Your task to perform on an android device: open app "Move to iOS" Image 0: 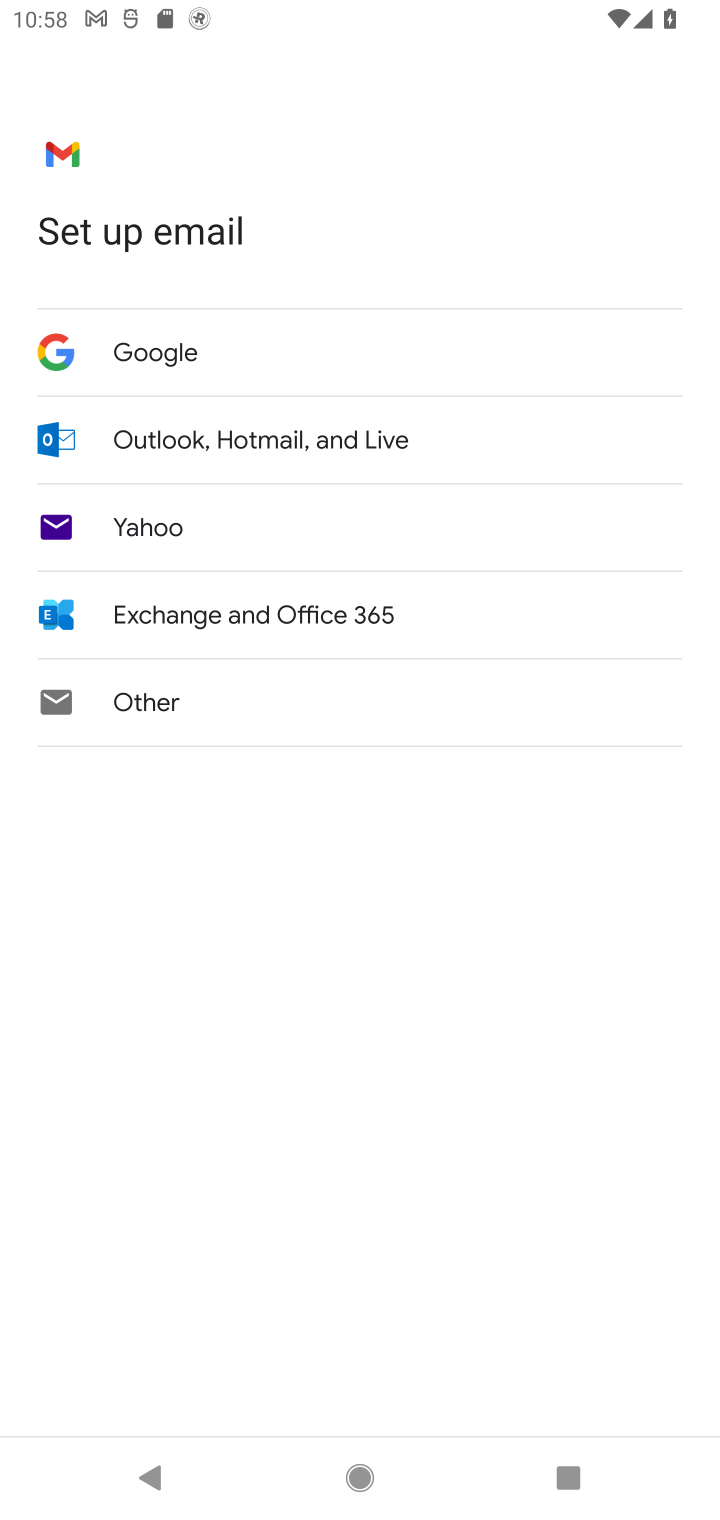
Step 0: press home button
Your task to perform on an android device: open app "Move to iOS" Image 1: 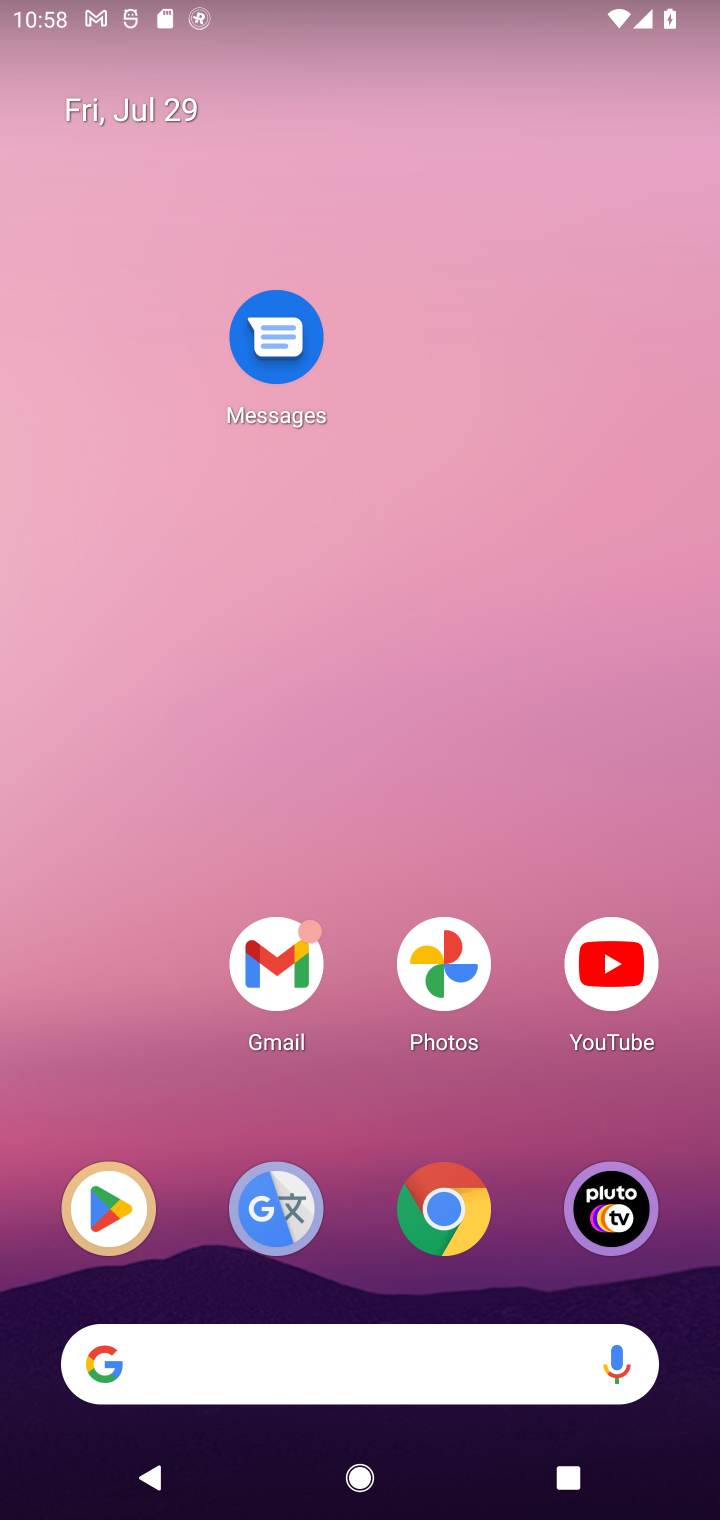
Step 1: drag from (248, 1362) to (355, 258)
Your task to perform on an android device: open app "Move to iOS" Image 2: 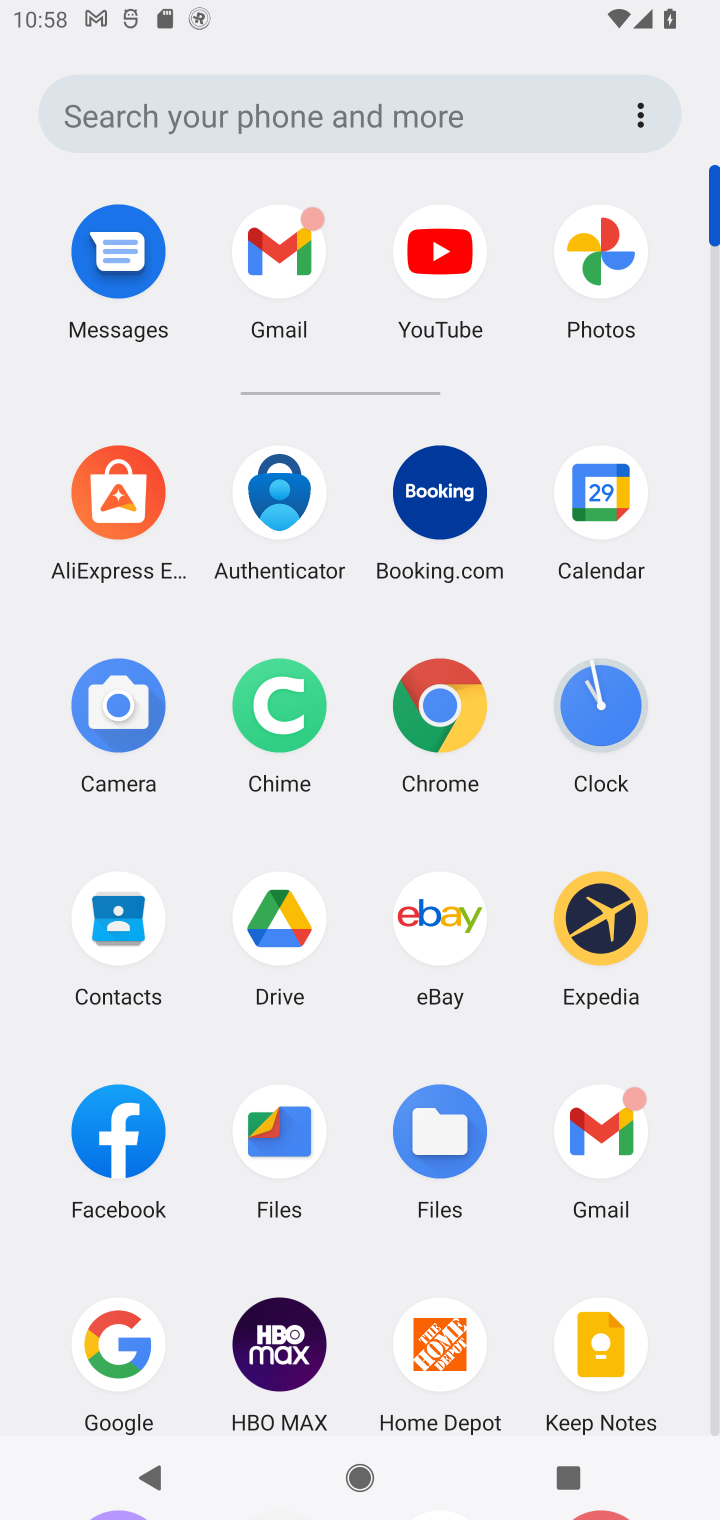
Step 2: drag from (345, 1233) to (450, 332)
Your task to perform on an android device: open app "Move to iOS" Image 3: 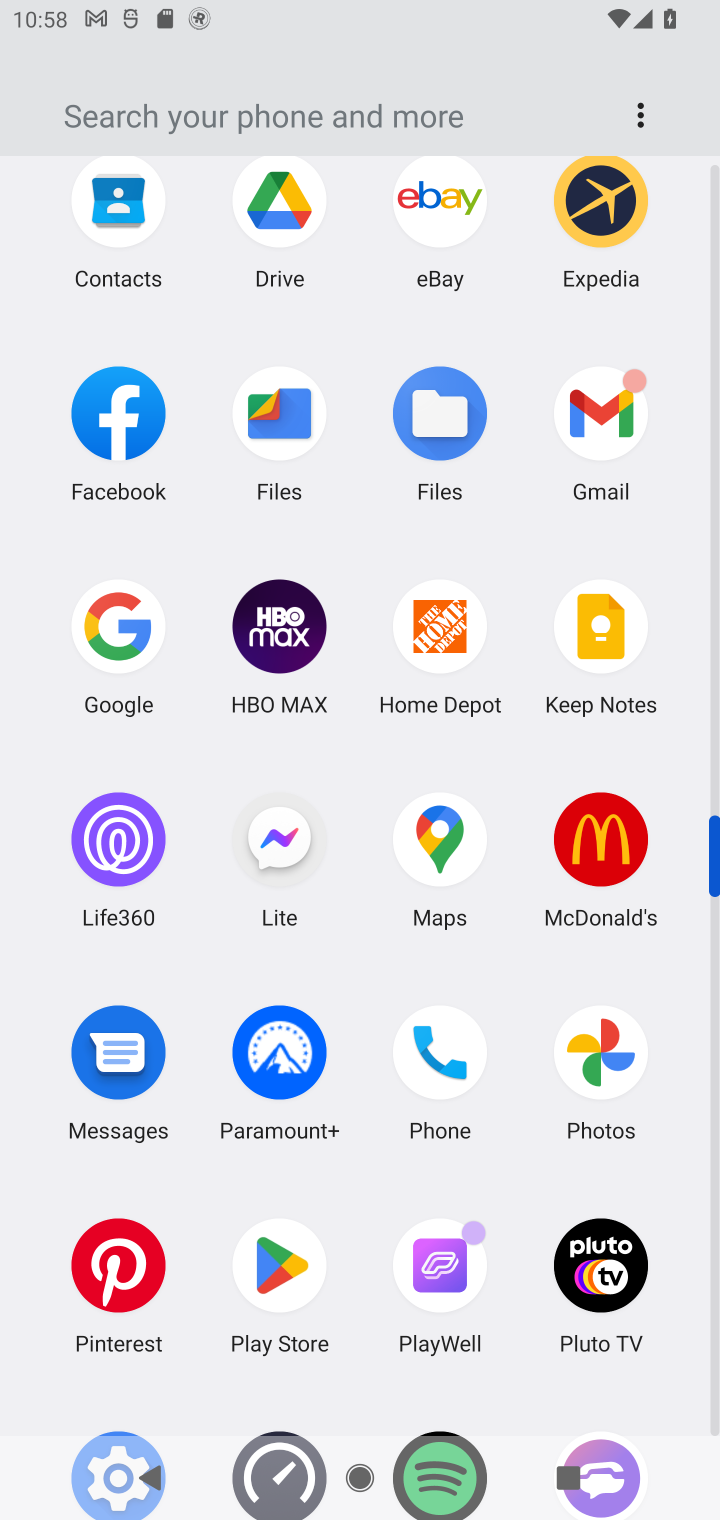
Step 3: click (281, 1269)
Your task to perform on an android device: open app "Move to iOS" Image 4: 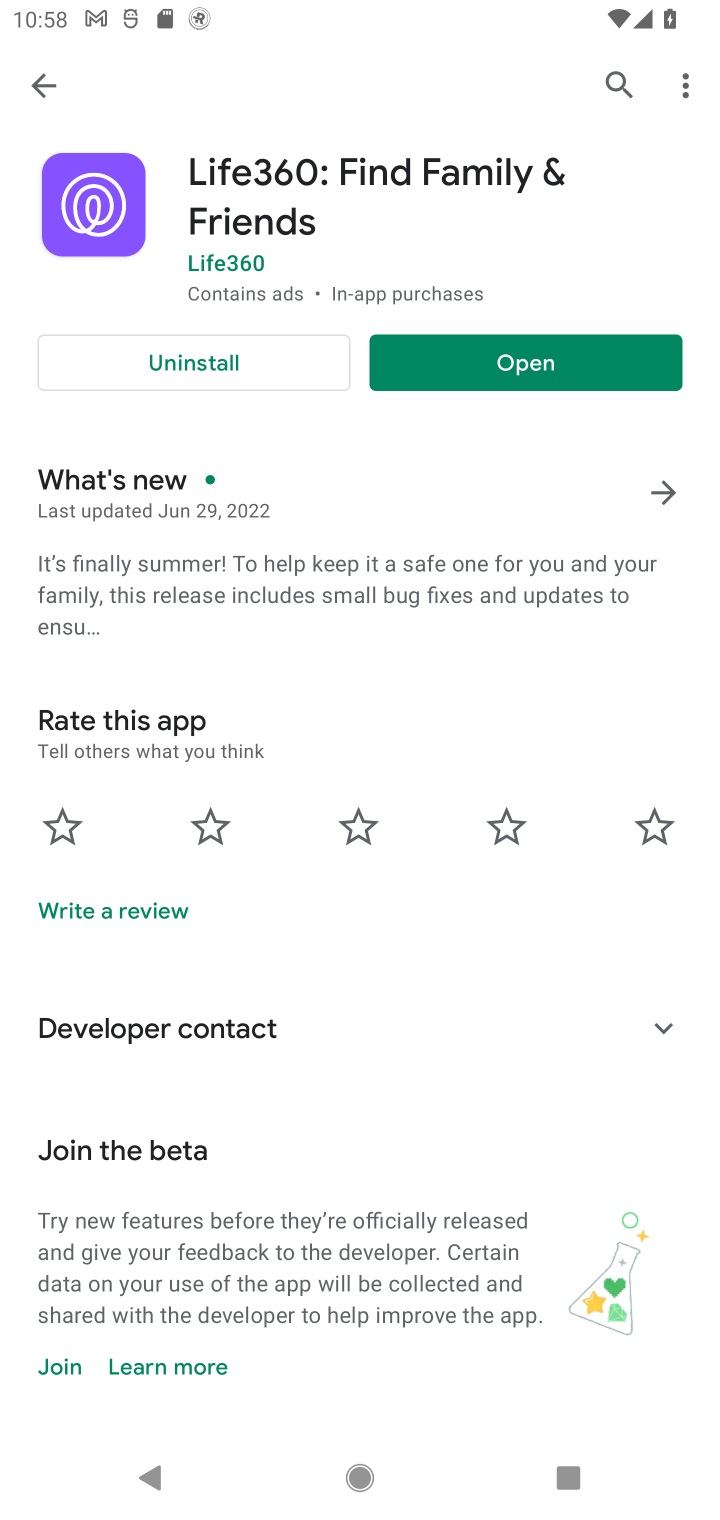
Step 4: click (629, 77)
Your task to perform on an android device: open app "Move to iOS" Image 5: 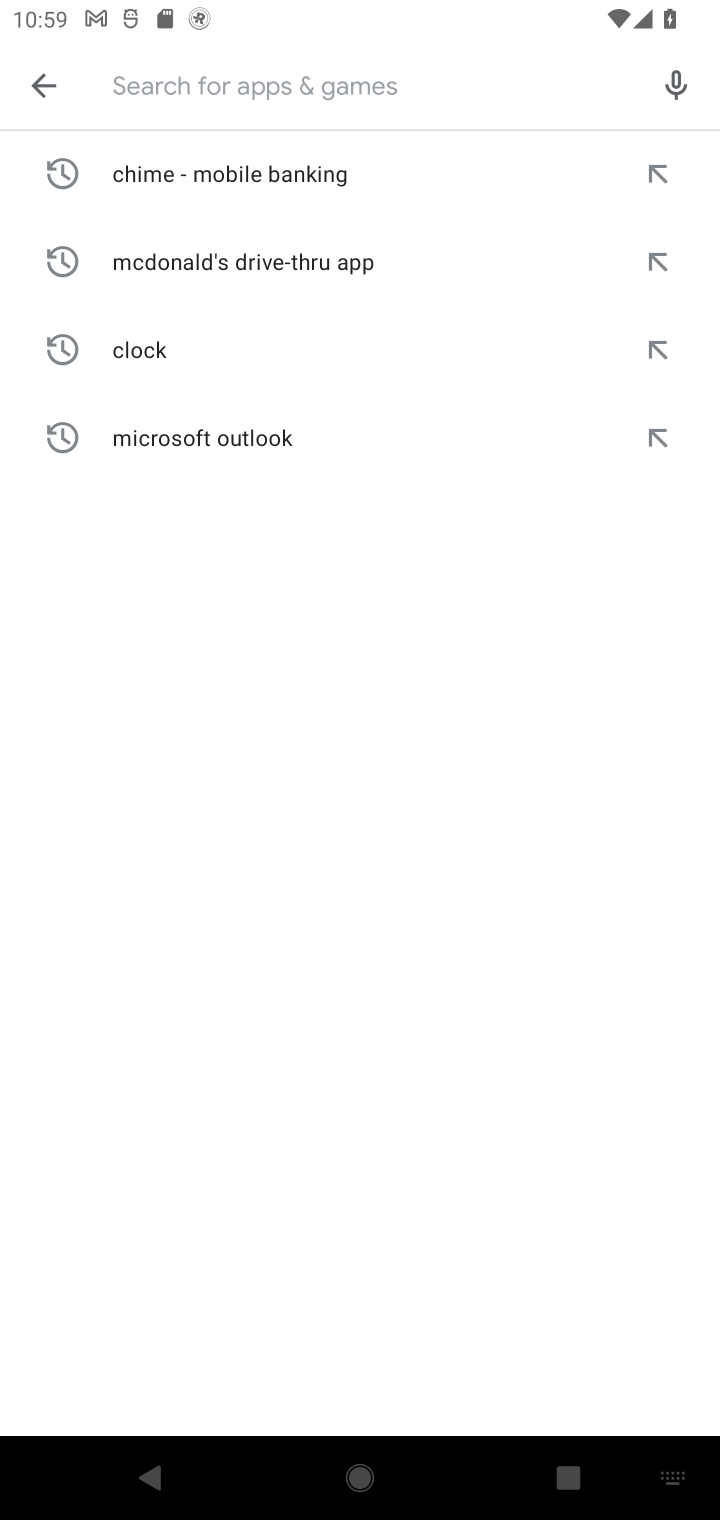
Step 5: type "Move to iOS"
Your task to perform on an android device: open app "Move to iOS" Image 6: 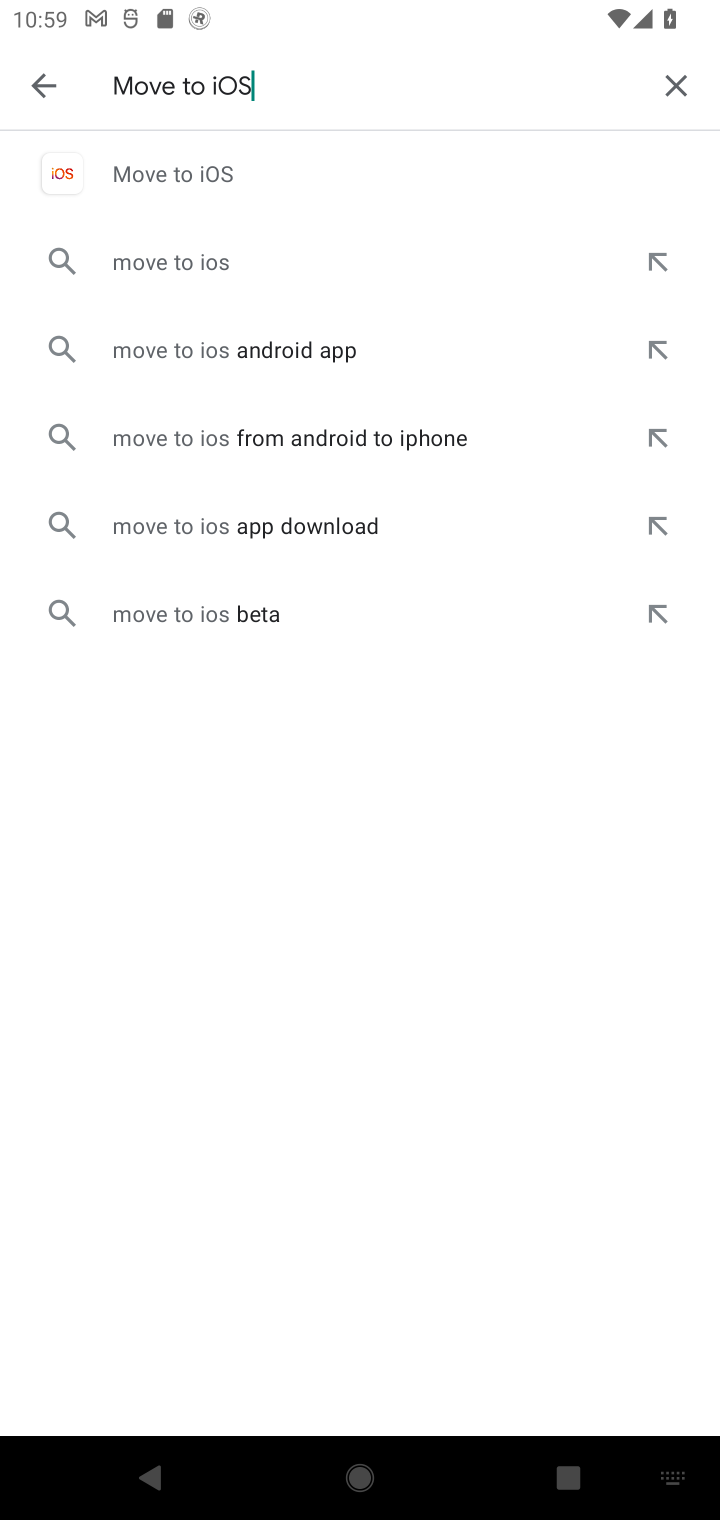
Step 6: click (205, 162)
Your task to perform on an android device: open app "Move to iOS" Image 7: 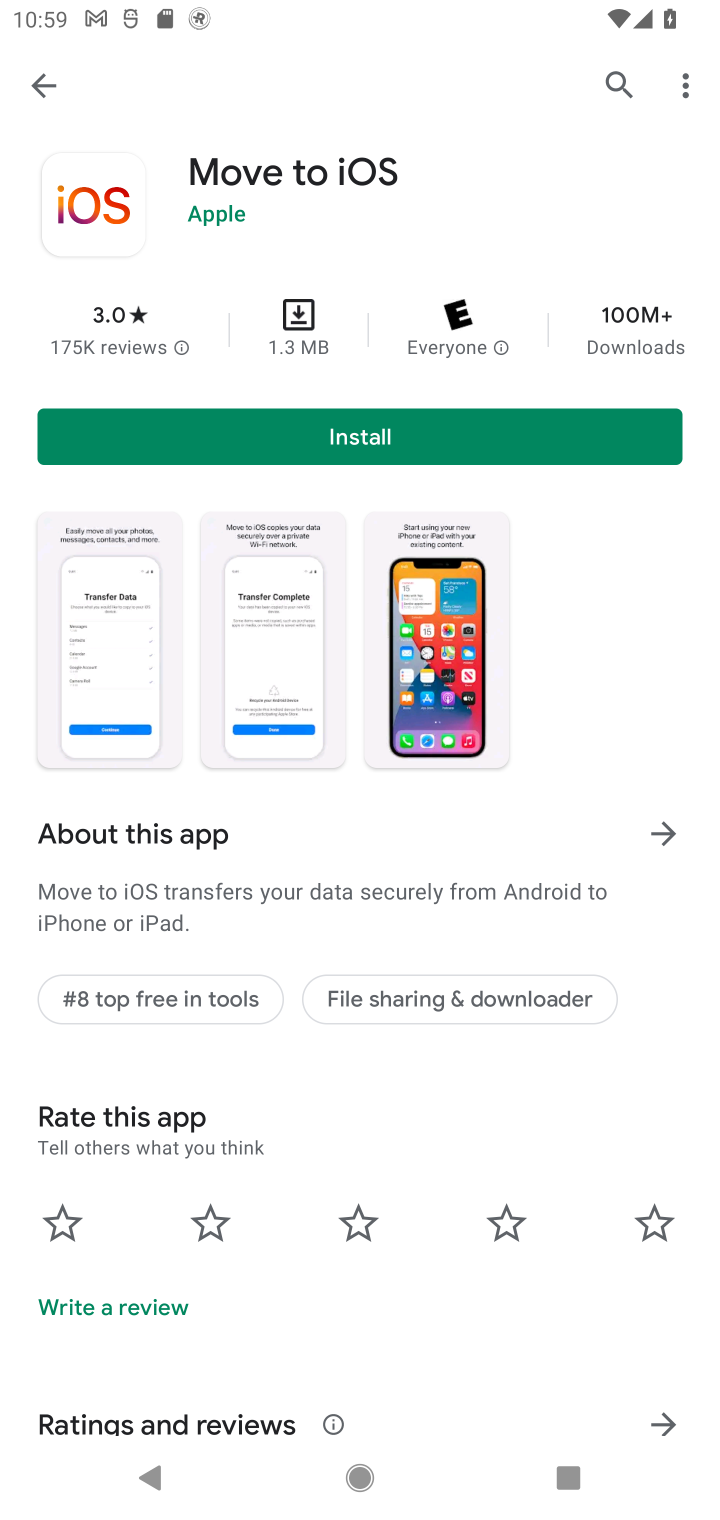
Step 7: task complete